Your task to perform on an android device: open app "Skype" (install if not already installed) Image 0: 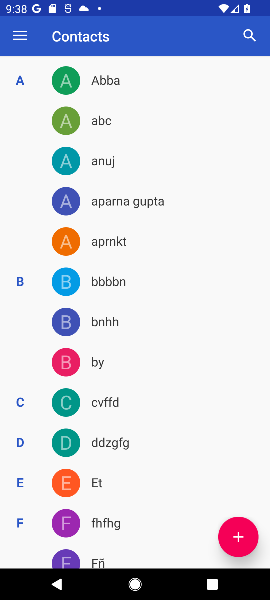
Step 0: press home button
Your task to perform on an android device: open app "Skype" (install if not already installed) Image 1: 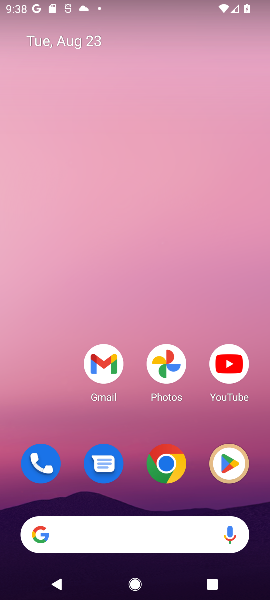
Step 1: click (232, 461)
Your task to perform on an android device: open app "Skype" (install if not already installed) Image 2: 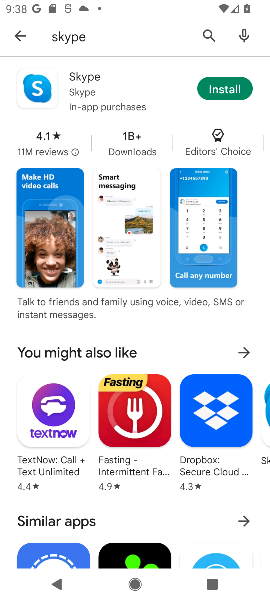
Step 2: click (222, 89)
Your task to perform on an android device: open app "Skype" (install if not already installed) Image 3: 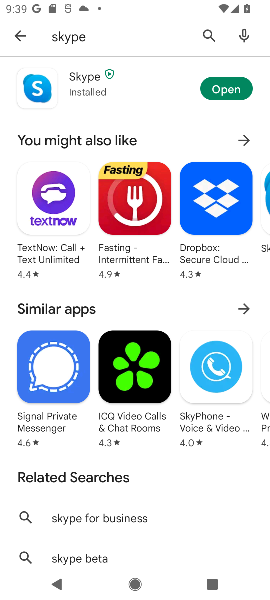
Step 3: click (218, 88)
Your task to perform on an android device: open app "Skype" (install if not already installed) Image 4: 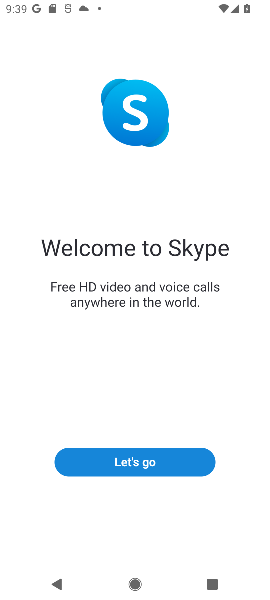
Step 4: click (131, 466)
Your task to perform on an android device: open app "Skype" (install if not already installed) Image 5: 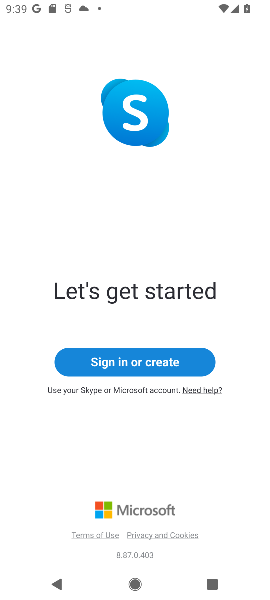
Step 5: click (126, 364)
Your task to perform on an android device: open app "Skype" (install if not already installed) Image 6: 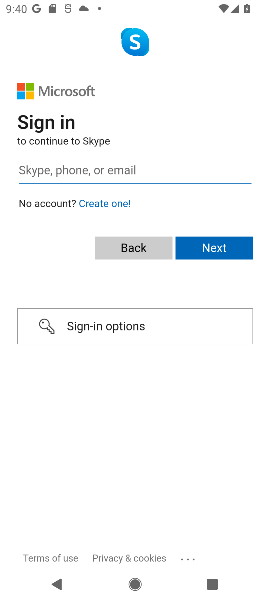
Step 6: task complete